Your task to perform on an android device: turn on showing notifications on the lock screen Image 0: 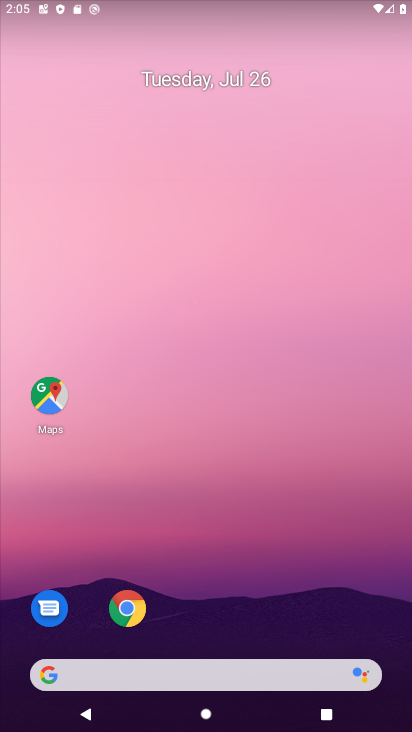
Step 0: drag from (257, 627) to (232, 125)
Your task to perform on an android device: turn on showing notifications on the lock screen Image 1: 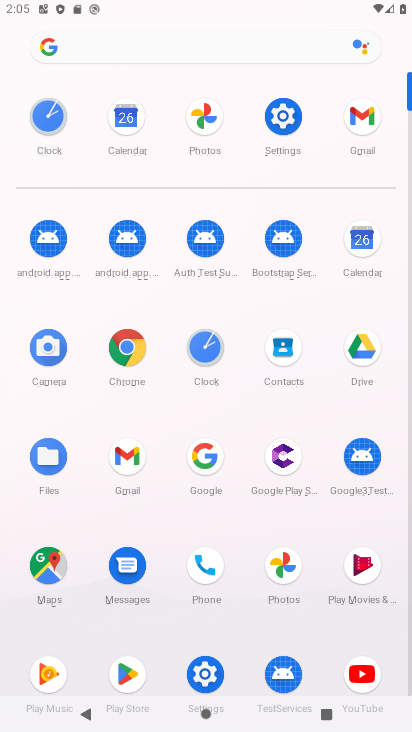
Step 1: click (274, 132)
Your task to perform on an android device: turn on showing notifications on the lock screen Image 2: 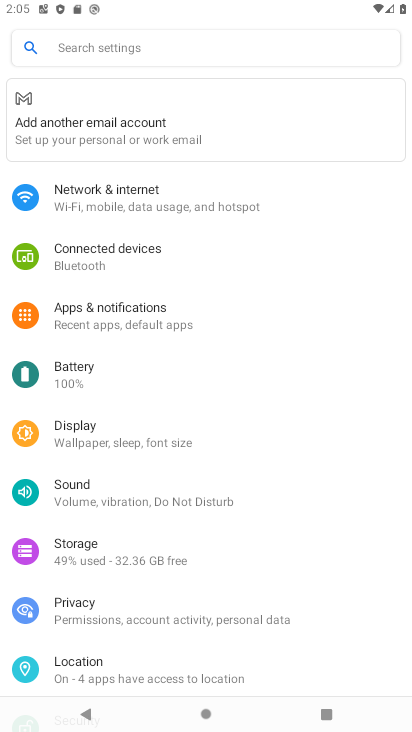
Step 2: click (219, 633)
Your task to perform on an android device: turn on showing notifications on the lock screen Image 3: 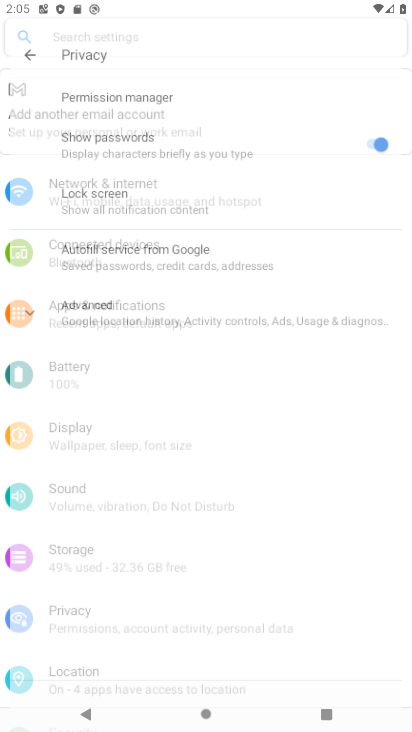
Step 3: click (219, 671)
Your task to perform on an android device: turn on showing notifications on the lock screen Image 4: 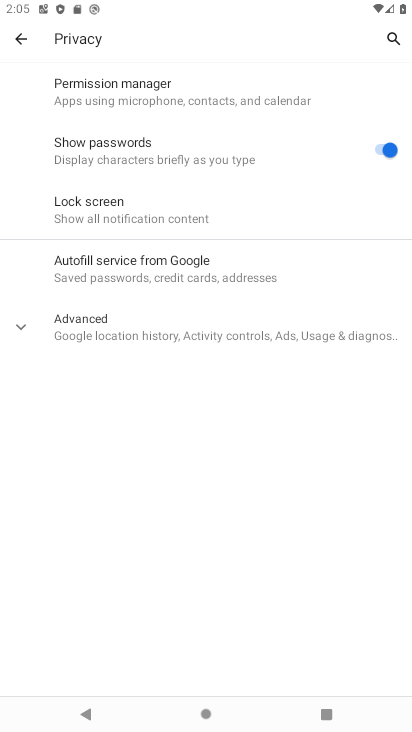
Step 4: task complete